Your task to perform on an android device: turn off picture-in-picture Image 0: 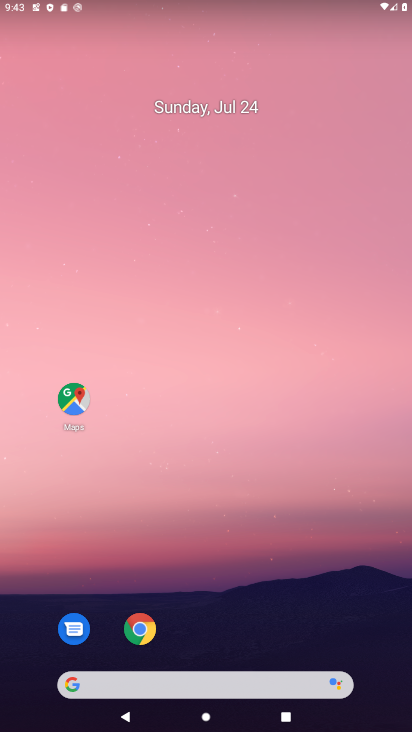
Step 0: drag from (291, 664) to (258, 183)
Your task to perform on an android device: turn off picture-in-picture Image 1: 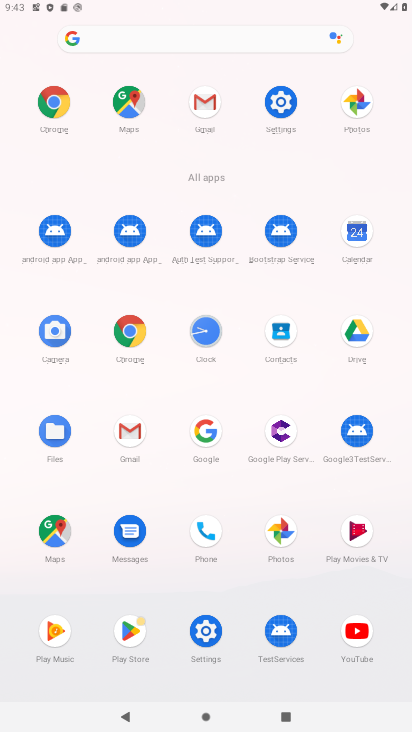
Step 1: click (281, 123)
Your task to perform on an android device: turn off picture-in-picture Image 2: 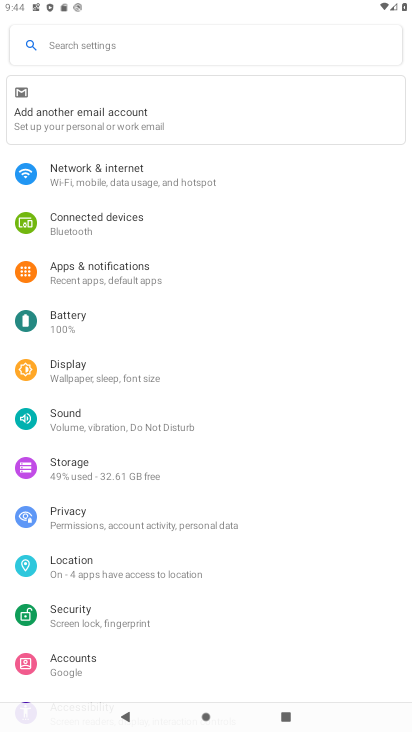
Step 2: task complete